Your task to perform on an android device: set an alarm Image 0: 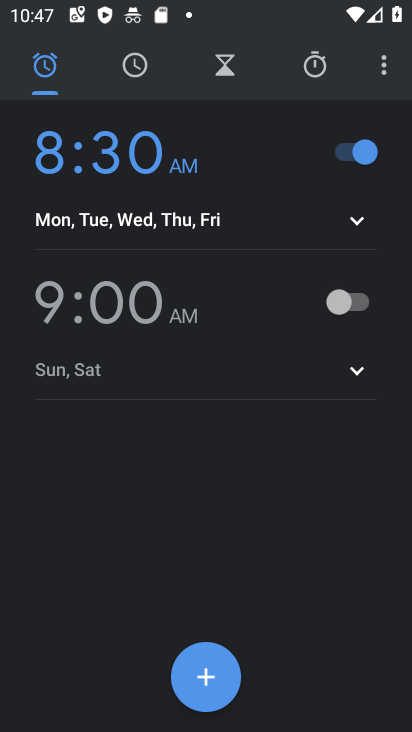
Step 0: click (360, 161)
Your task to perform on an android device: set an alarm Image 1: 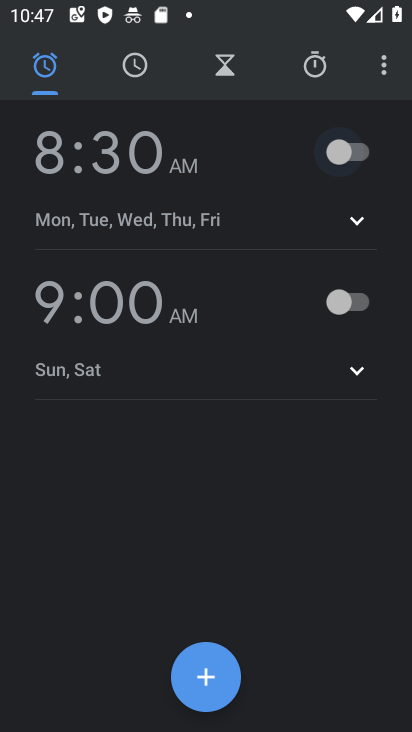
Step 1: click (342, 300)
Your task to perform on an android device: set an alarm Image 2: 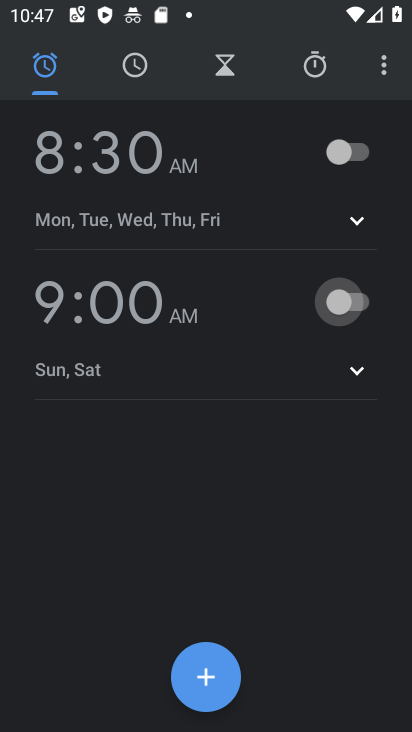
Step 2: click (210, 674)
Your task to perform on an android device: set an alarm Image 3: 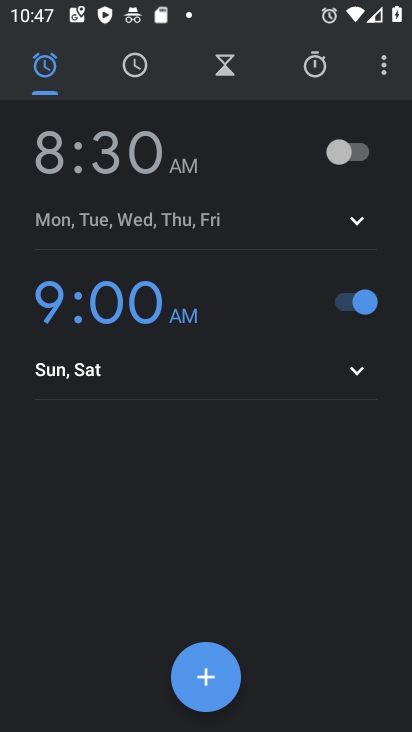
Step 3: task complete